Your task to perform on an android device: Open Chrome and go to the settings page Image 0: 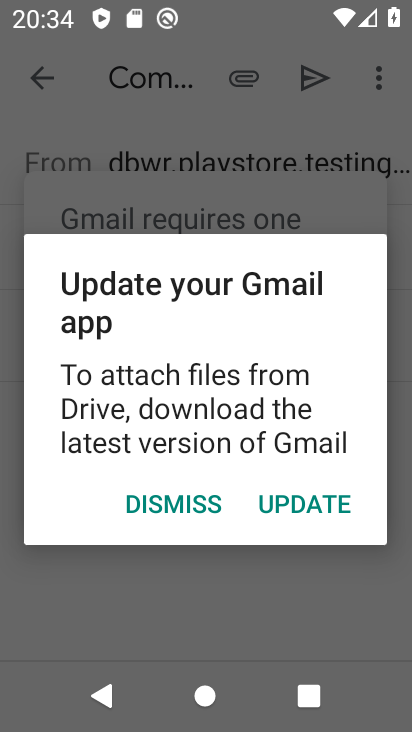
Step 0: press home button
Your task to perform on an android device: Open Chrome and go to the settings page Image 1: 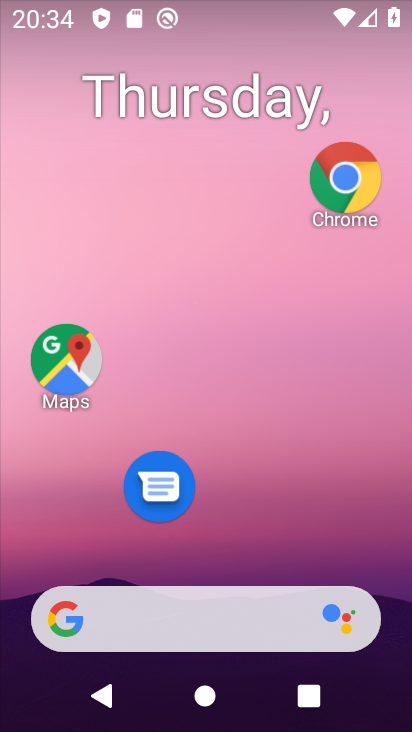
Step 1: drag from (234, 548) to (171, 12)
Your task to perform on an android device: Open Chrome and go to the settings page Image 2: 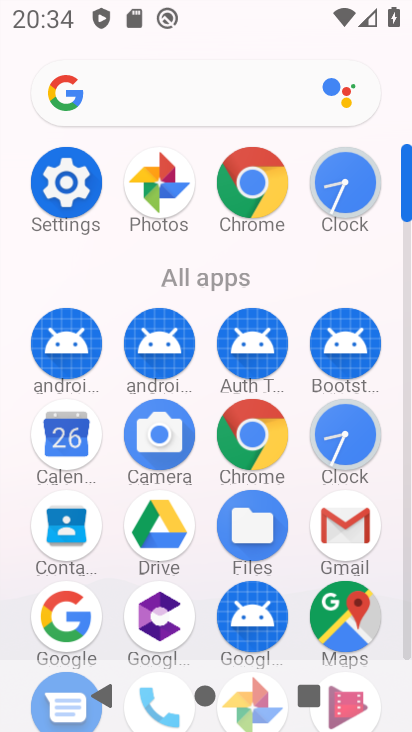
Step 2: click (253, 178)
Your task to perform on an android device: Open Chrome and go to the settings page Image 3: 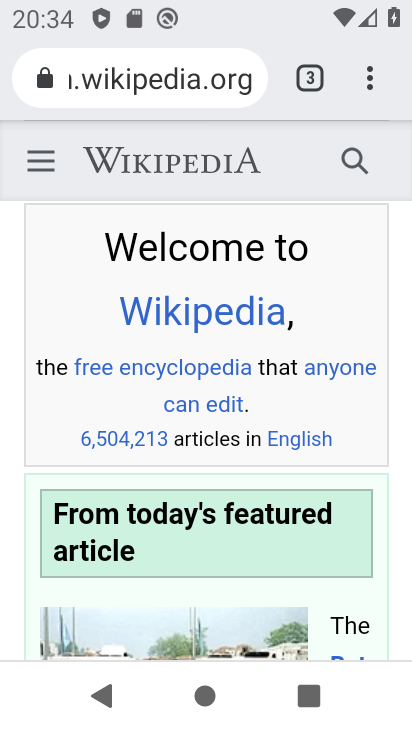
Step 3: click (373, 85)
Your task to perform on an android device: Open Chrome and go to the settings page Image 4: 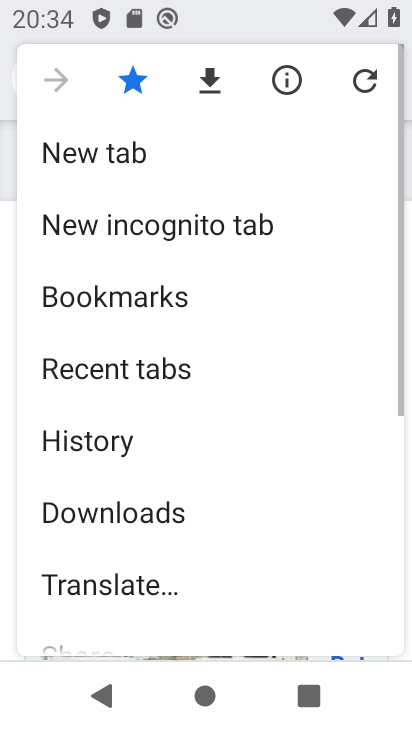
Step 4: drag from (267, 389) to (199, 88)
Your task to perform on an android device: Open Chrome and go to the settings page Image 5: 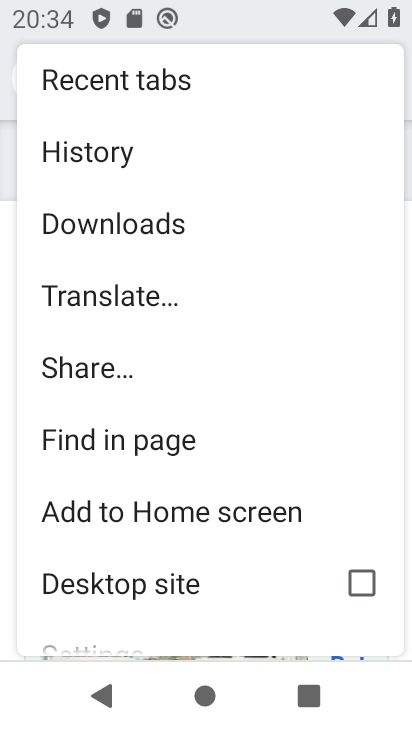
Step 5: drag from (144, 511) to (64, 259)
Your task to perform on an android device: Open Chrome and go to the settings page Image 6: 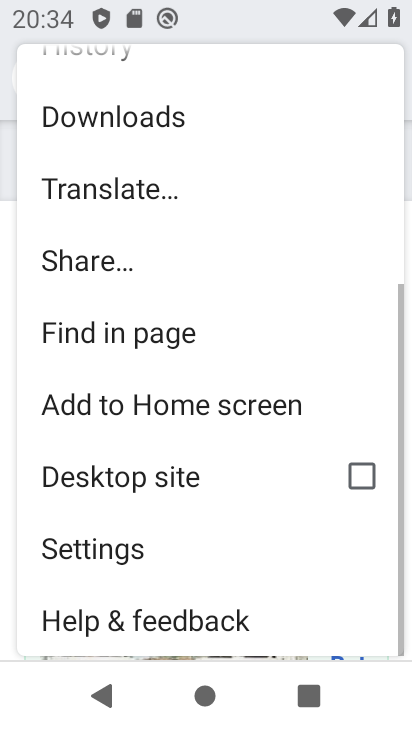
Step 6: click (125, 527)
Your task to perform on an android device: Open Chrome and go to the settings page Image 7: 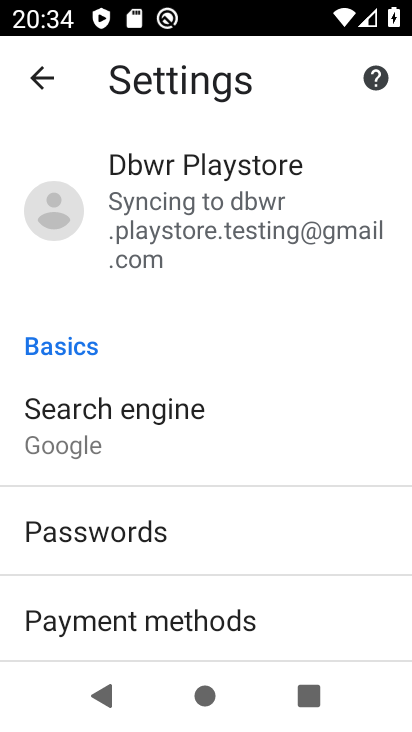
Step 7: task complete